Your task to perform on an android device: Open Reddit.com Image 0: 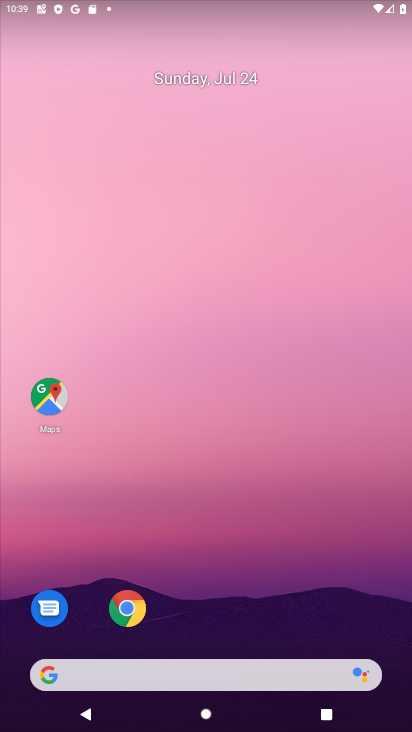
Step 0: click (124, 606)
Your task to perform on an android device: Open Reddit.com Image 1: 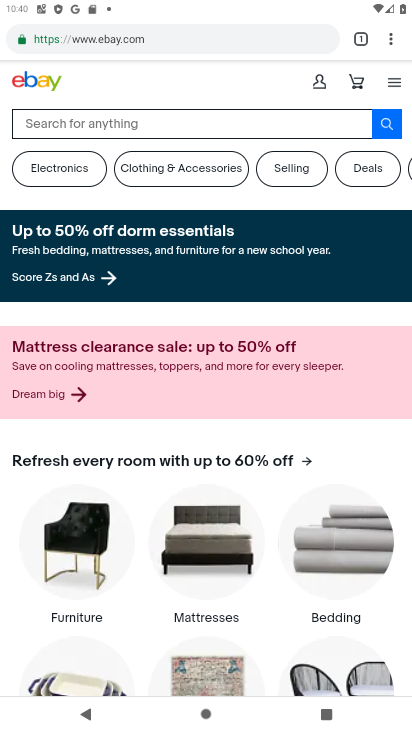
Step 1: click (368, 34)
Your task to perform on an android device: Open Reddit.com Image 2: 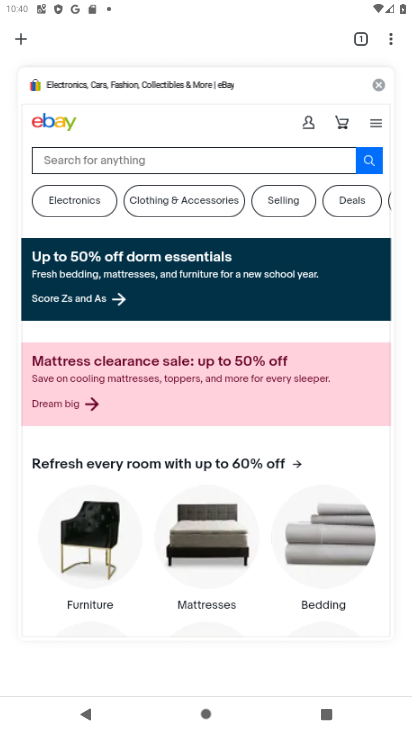
Step 2: click (21, 35)
Your task to perform on an android device: Open Reddit.com Image 3: 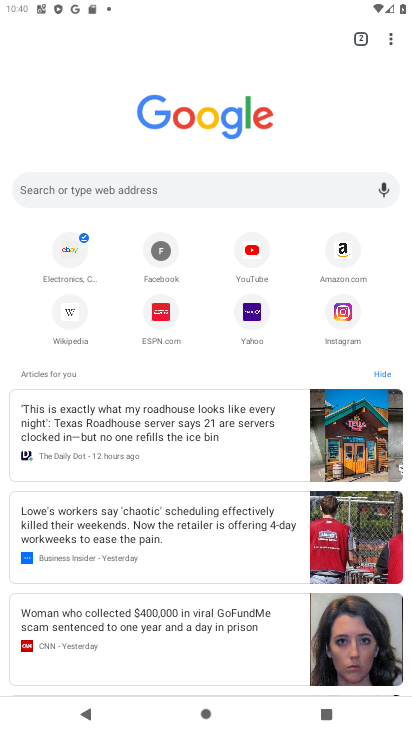
Step 3: click (103, 186)
Your task to perform on an android device: Open Reddit.com Image 4: 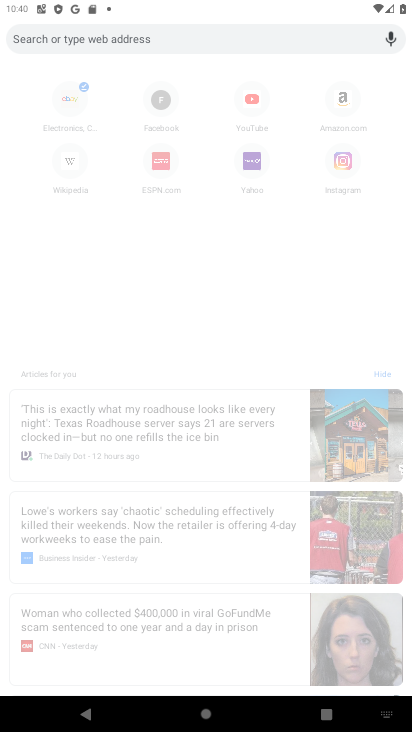
Step 4: type "reddit.com"
Your task to perform on an android device: Open Reddit.com Image 5: 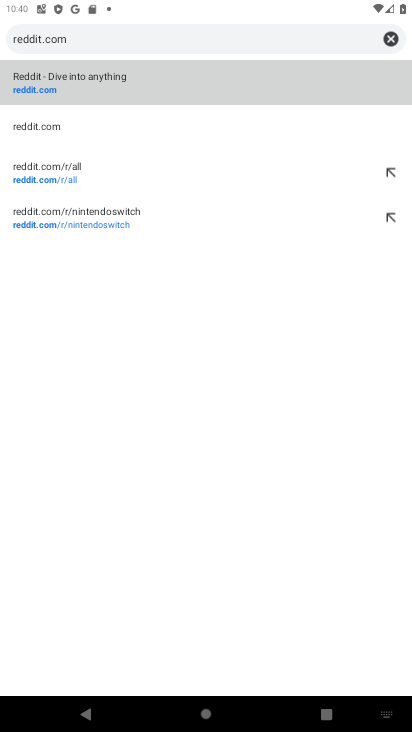
Step 5: click (69, 90)
Your task to perform on an android device: Open Reddit.com Image 6: 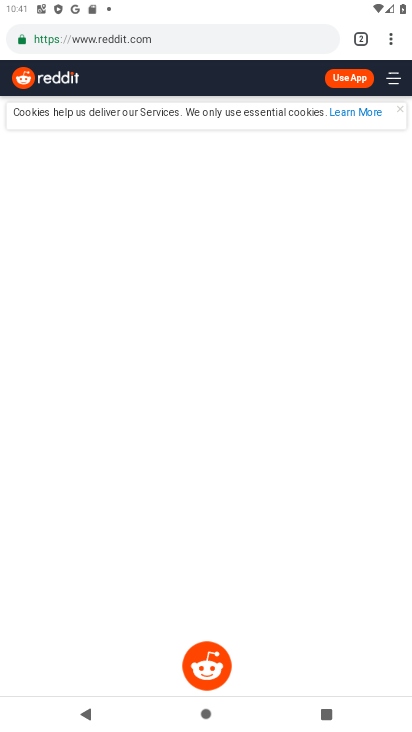
Step 6: task complete